Your task to perform on an android device: change text size in settings app Image 0: 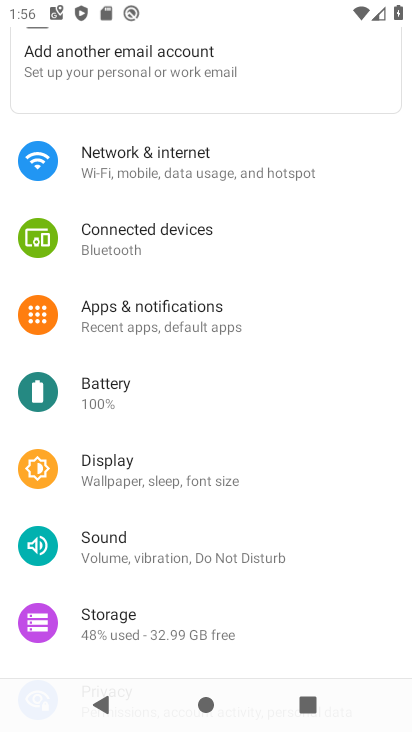
Step 0: click (132, 474)
Your task to perform on an android device: change text size in settings app Image 1: 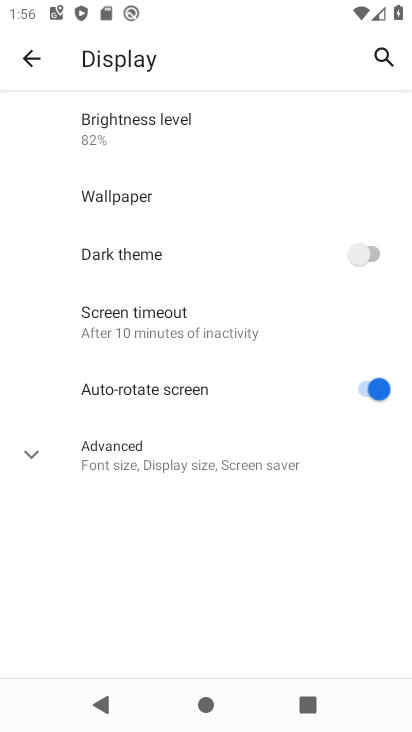
Step 1: click (159, 453)
Your task to perform on an android device: change text size in settings app Image 2: 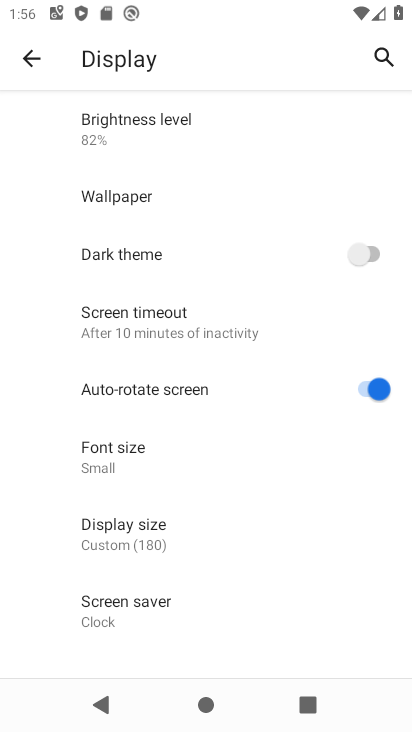
Step 2: click (131, 464)
Your task to perform on an android device: change text size in settings app Image 3: 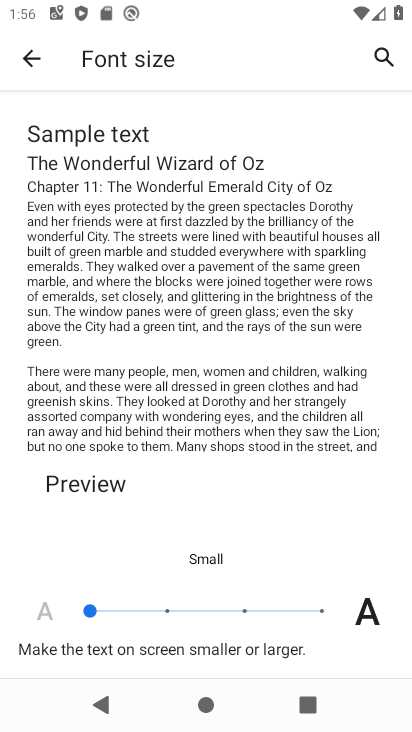
Step 3: click (149, 613)
Your task to perform on an android device: change text size in settings app Image 4: 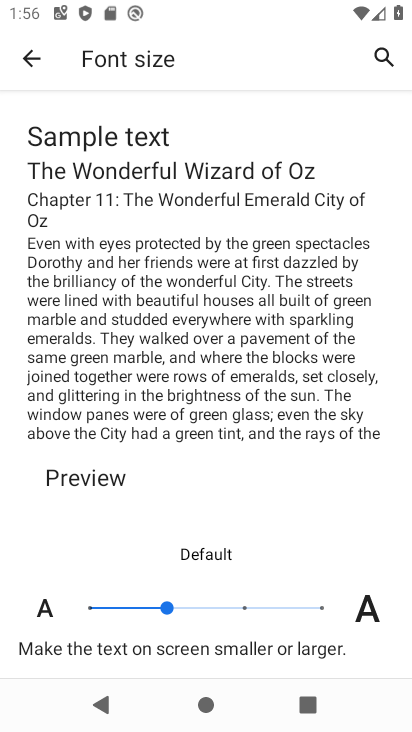
Step 4: task complete